Your task to perform on an android device: toggle airplane mode Image 0: 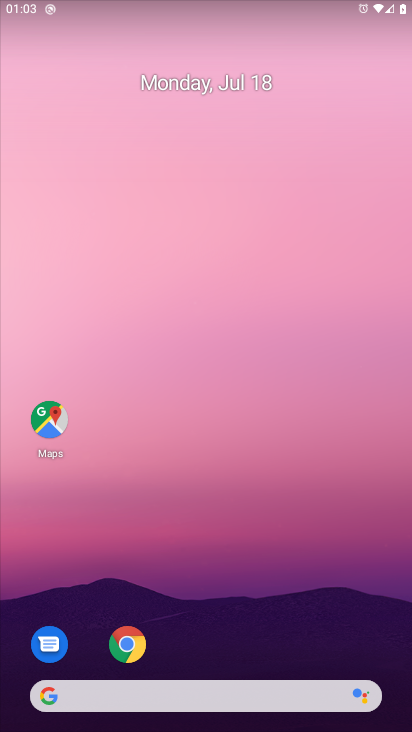
Step 0: press home button
Your task to perform on an android device: toggle airplane mode Image 1: 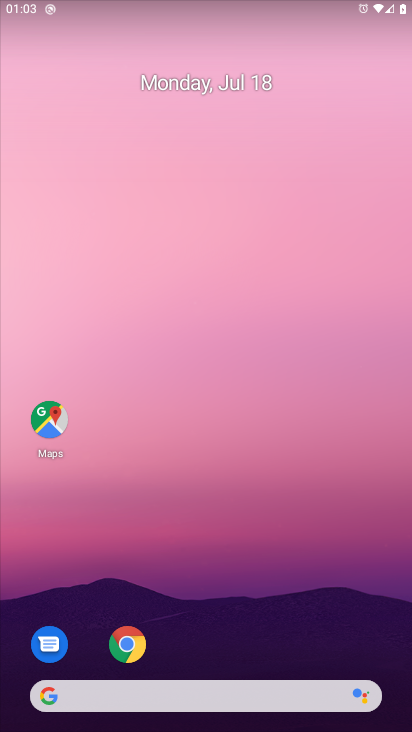
Step 1: drag from (234, 3) to (215, 466)
Your task to perform on an android device: toggle airplane mode Image 2: 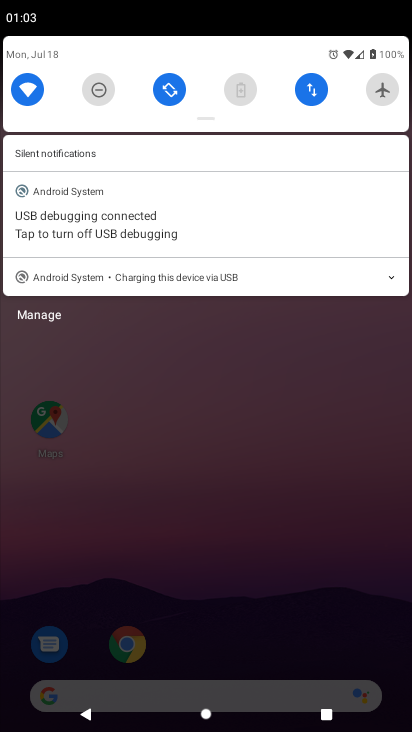
Step 2: click (382, 93)
Your task to perform on an android device: toggle airplane mode Image 3: 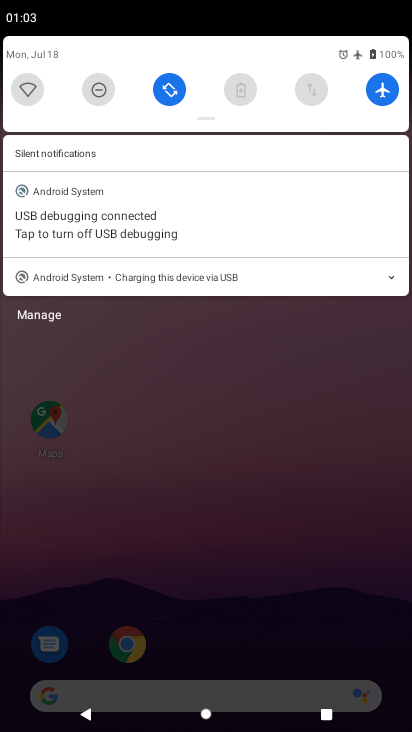
Step 3: task complete